Your task to perform on an android device: toggle show notifications on the lock screen Image 0: 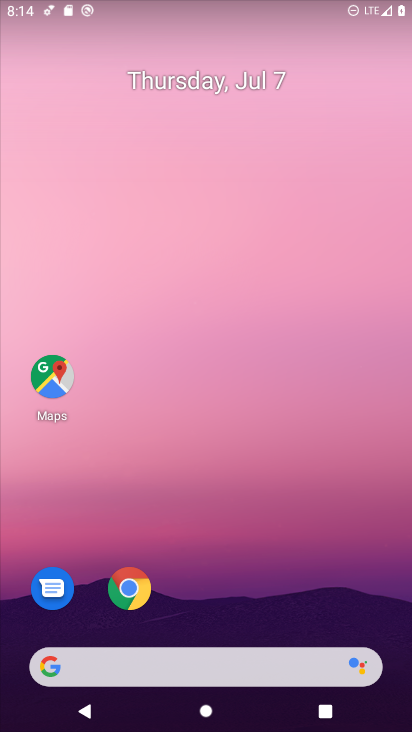
Step 0: drag from (229, 669) to (229, 185)
Your task to perform on an android device: toggle show notifications on the lock screen Image 1: 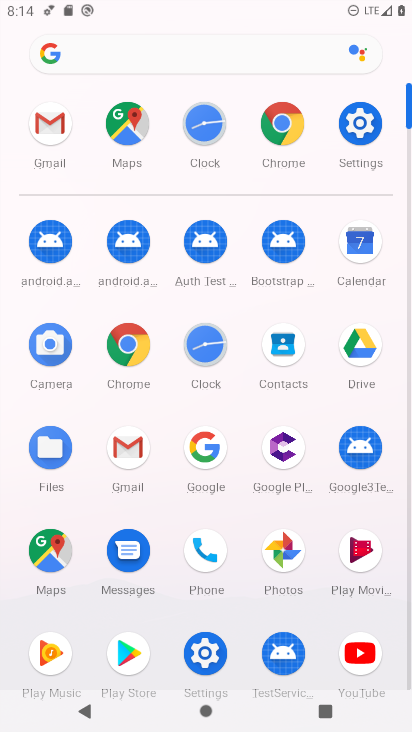
Step 1: click (361, 115)
Your task to perform on an android device: toggle show notifications on the lock screen Image 2: 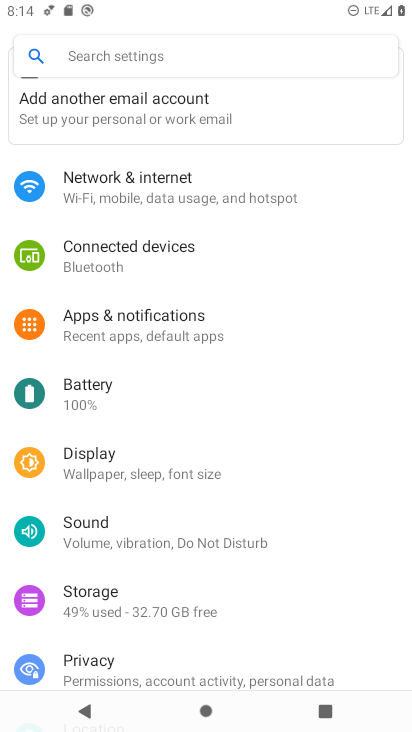
Step 2: press home button
Your task to perform on an android device: toggle show notifications on the lock screen Image 3: 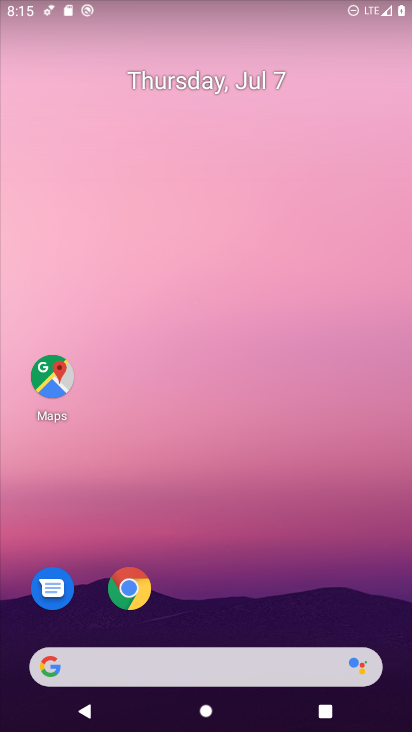
Step 3: drag from (213, 655) to (205, 189)
Your task to perform on an android device: toggle show notifications on the lock screen Image 4: 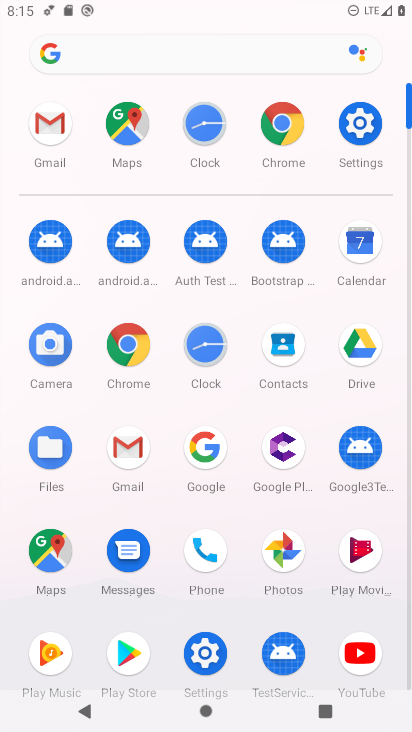
Step 4: click (355, 120)
Your task to perform on an android device: toggle show notifications on the lock screen Image 5: 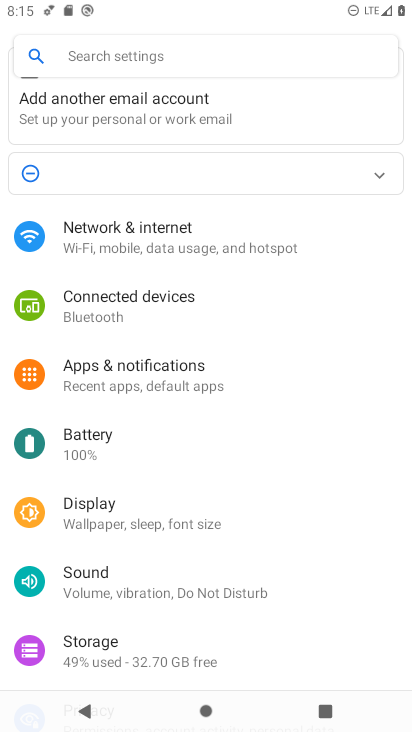
Step 5: click (121, 232)
Your task to perform on an android device: toggle show notifications on the lock screen Image 6: 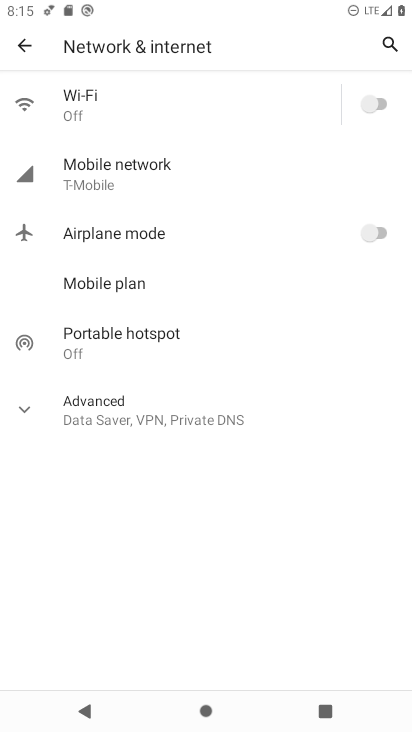
Step 6: click (15, 47)
Your task to perform on an android device: toggle show notifications on the lock screen Image 7: 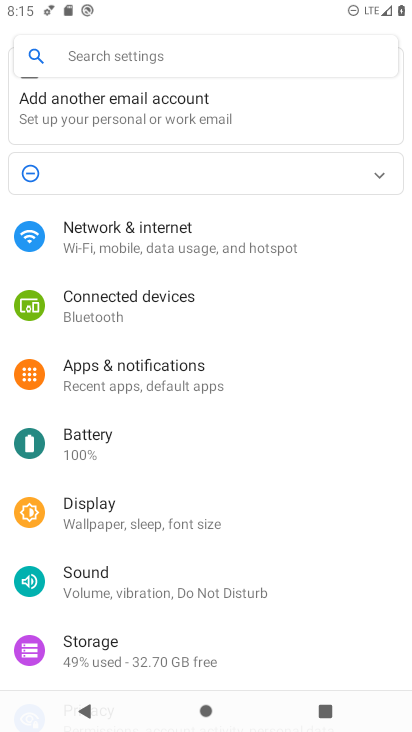
Step 7: click (151, 378)
Your task to perform on an android device: toggle show notifications on the lock screen Image 8: 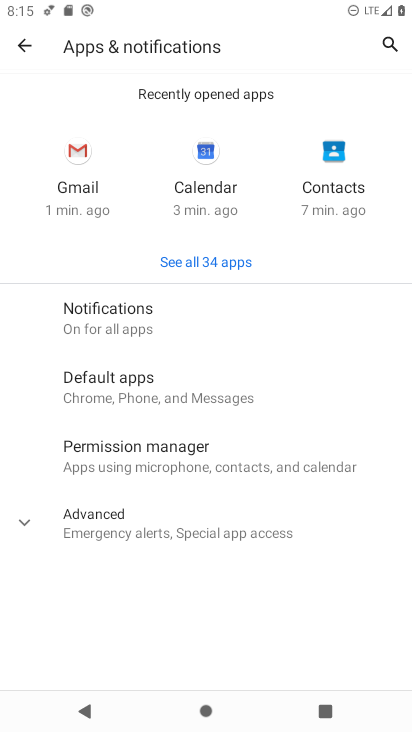
Step 8: click (222, 325)
Your task to perform on an android device: toggle show notifications on the lock screen Image 9: 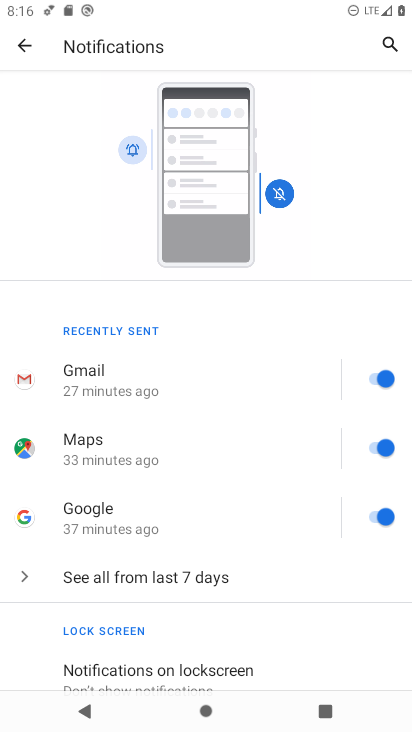
Step 9: drag from (172, 647) to (208, 373)
Your task to perform on an android device: toggle show notifications on the lock screen Image 10: 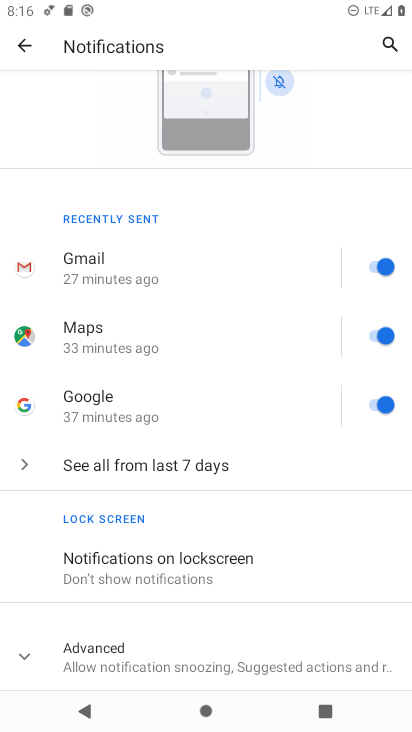
Step 10: click (193, 561)
Your task to perform on an android device: toggle show notifications on the lock screen Image 11: 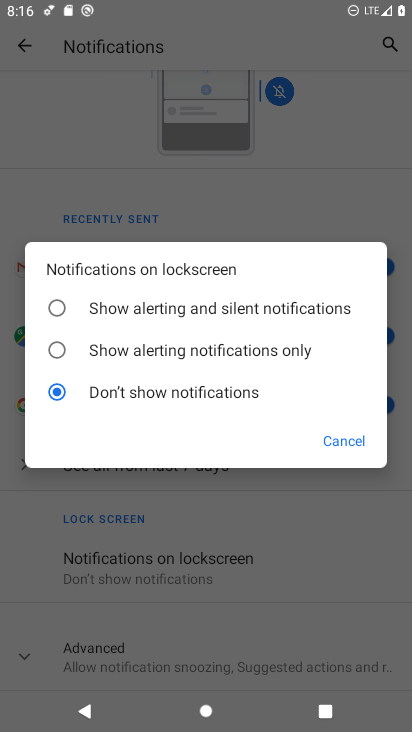
Step 11: click (136, 307)
Your task to perform on an android device: toggle show notifications on the lock screen Image 12: 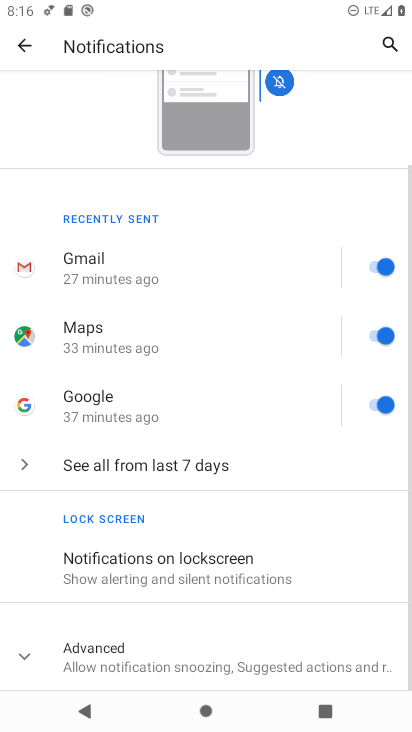
Step 12: task complete